Your task to perform on an android device: delete the emails in spam in the gmail app Image 0: 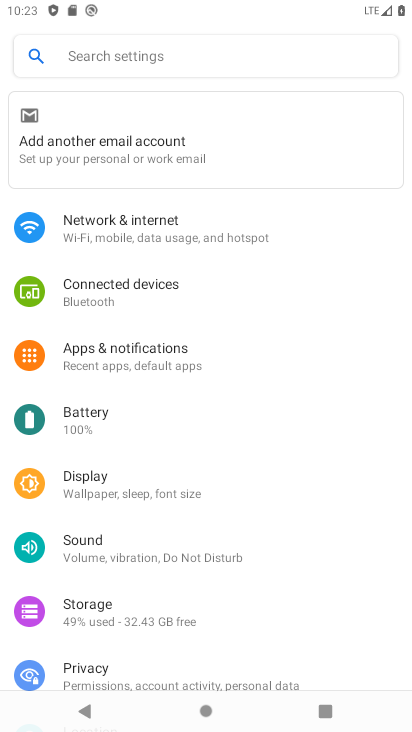
Step 0: press home button
Your task to perform on an android device: delete the emails in spam in the gmail app Image 1: 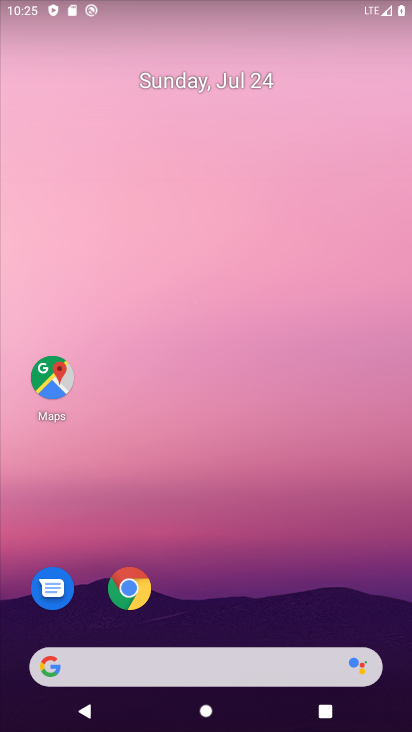
Step 1: drag from (132, 723) to (225, 158)
Your task to perform on an android device: delete the emails in spam in the gmail app Image 2: 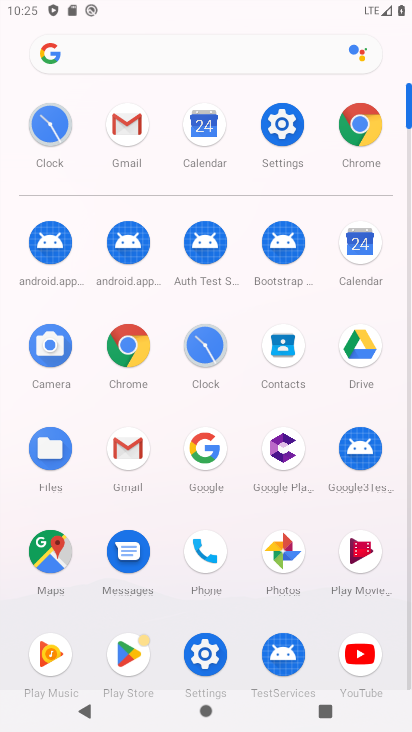
Step 2: click (127, 136)
Your task to perform on an android device: delete the emails in spam in the gmail app Image 3: 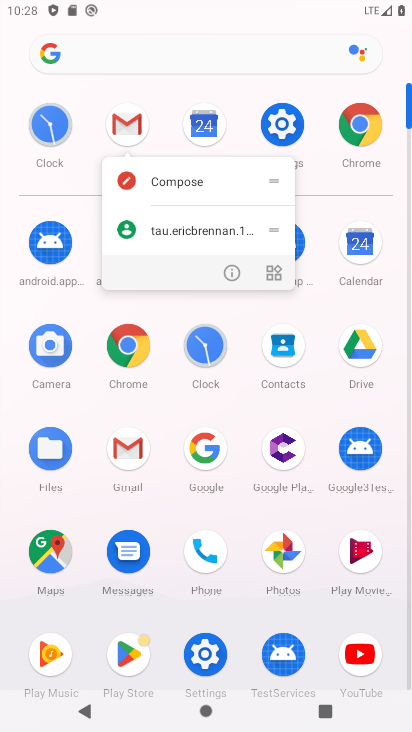
Step 3: press home button
Your task to perform on an android device: delete the emails in spam in the gmail app Image 4: 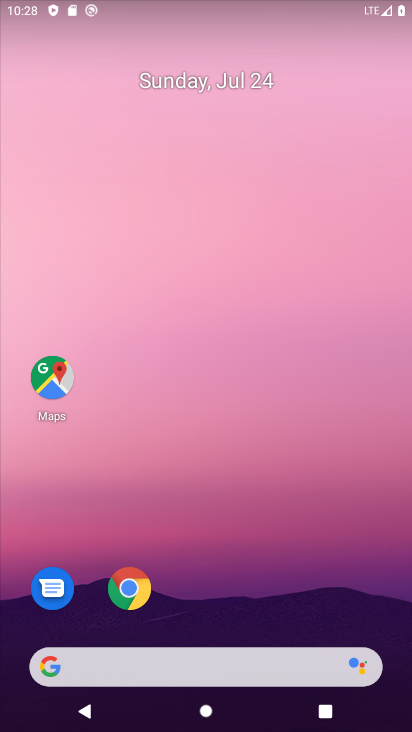
Step 4: drag from (266, 714) to (225, 49)
Your task to perform on an android device: delete the emails in spam in the gmail app Image 5: 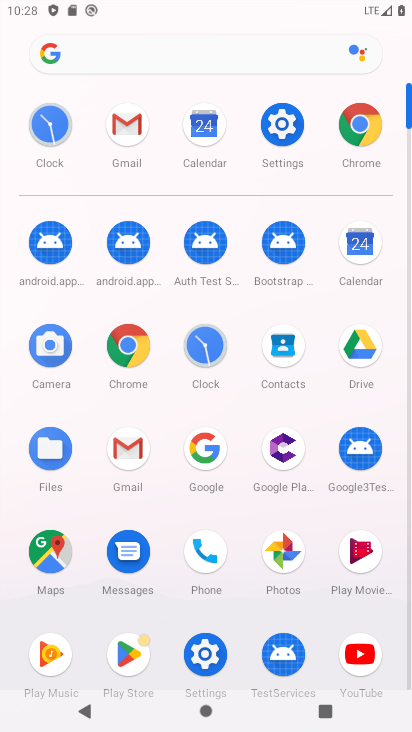
Step 5: click (124, 125)
Your task to perform on an android device: delete the emails in spam in the gmail app Image 6: 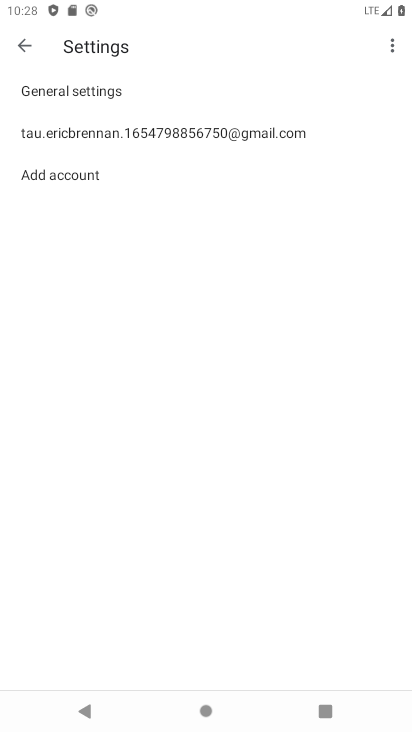
Step 6: click (20, 44)
Your task to perform on an android device: delete the emails in spam in the gmail app Image 7: 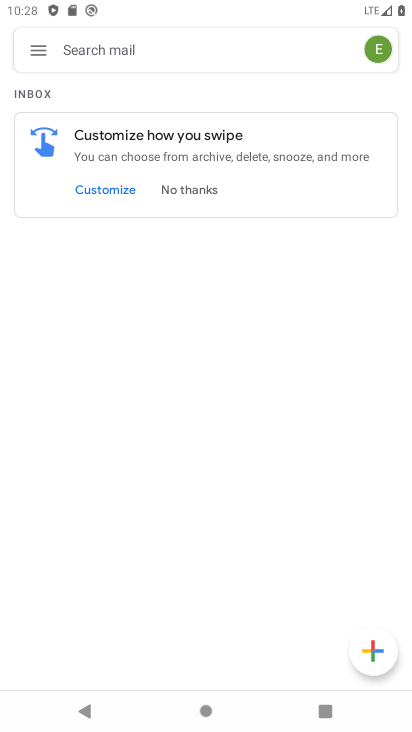
Step 7: task complete